Your task to perform on an android device: Clear the cart on amazon.com. Add "dell alienware" to the cart on amazon.com, then select checkout. Image 0: 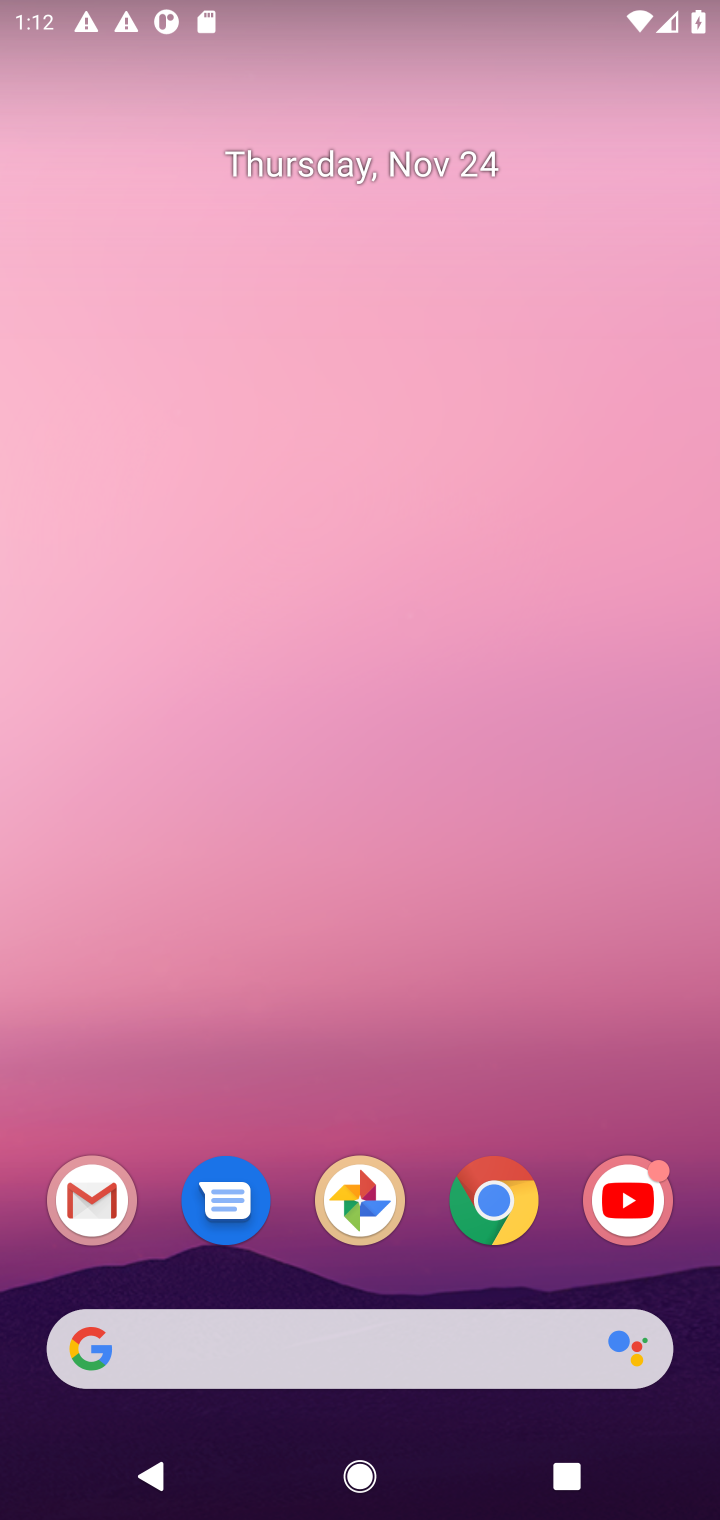
Step 0: click (520, 1362)
Your task to perform on an android device: Clear the cart on amazon.com. Add "dell alienware" to the cart on amazon.com, then select checkout. Image 1: 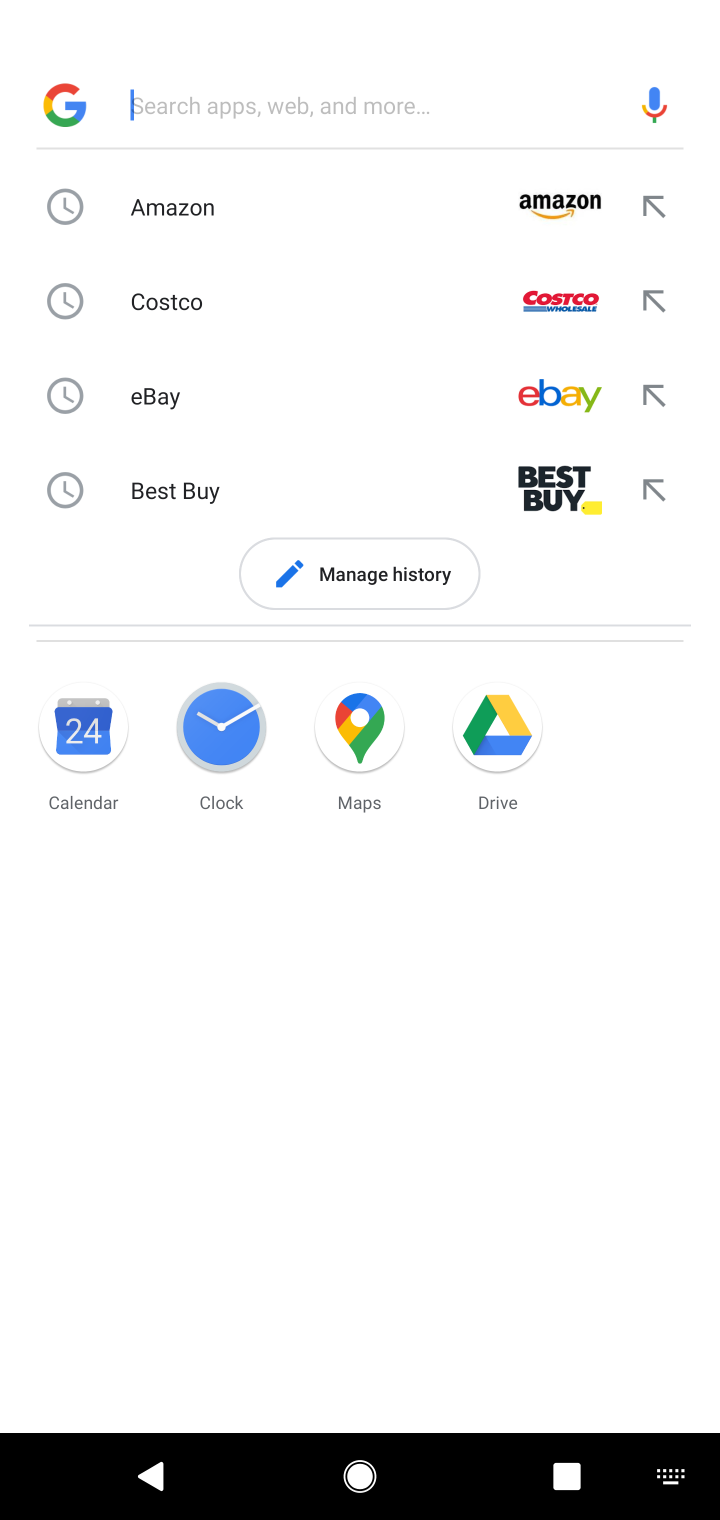
Step 1: type "amazon.com"
Your task to perform on an android device: Clear the cart on amazon.com. Add "dell alienware" to the cart on amazon.com, then select checkout. Image 2: 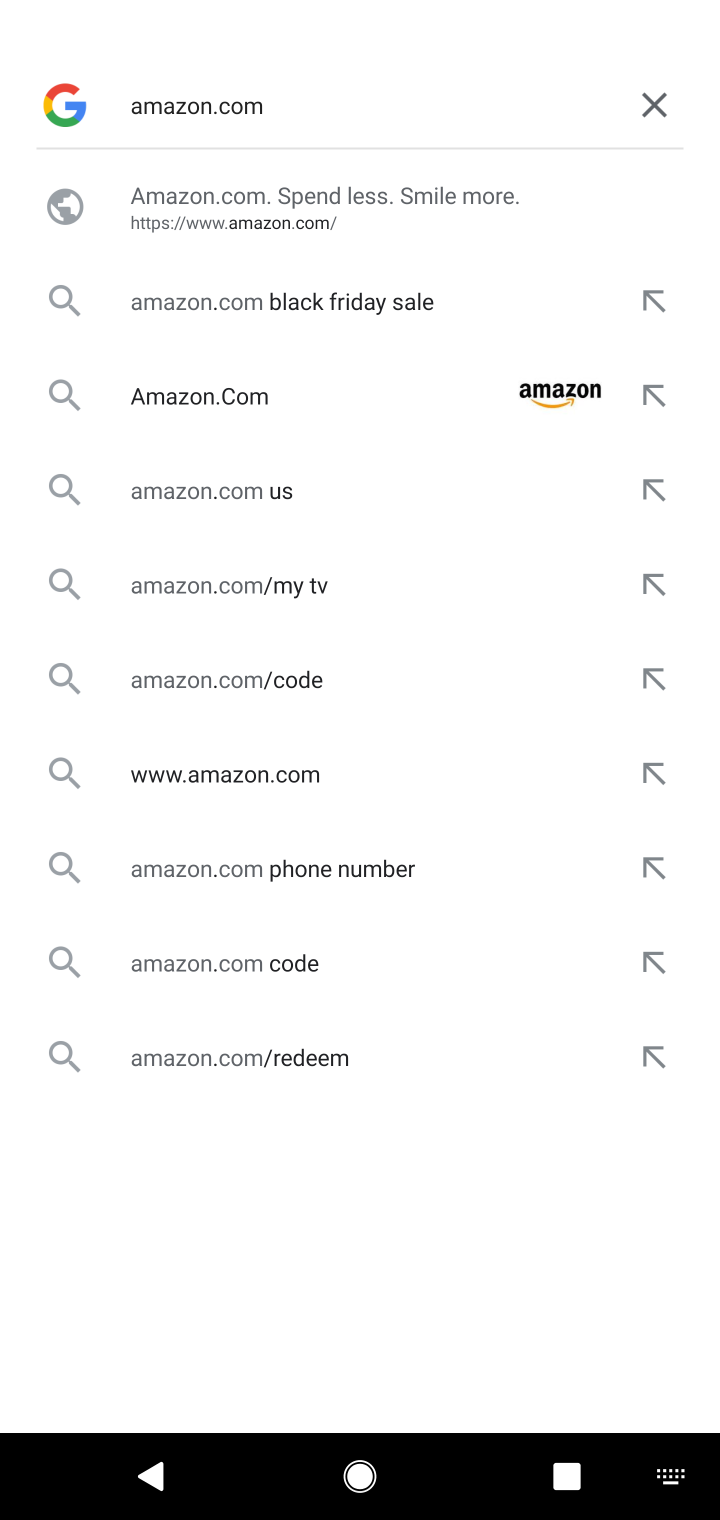
Step 2: click (395, 206)
Your task to perform on an android device: Clear the cart on amazon.com. Add "dell alienware" to the cart on amazon.com, then select checkout. Image 3: 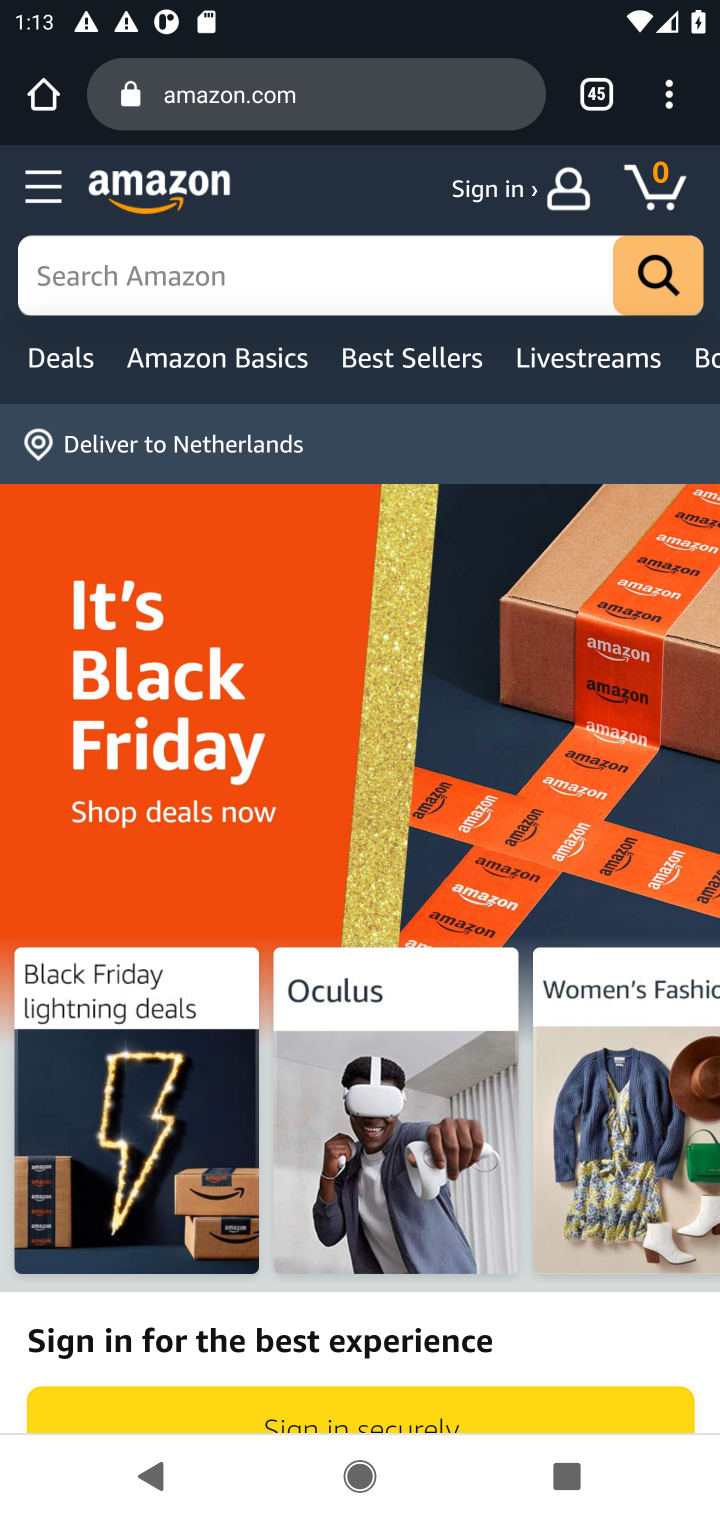
Step 3: click (287, 272)
Your task to perform on an android device: Clear the cart on amazon.com. Add "dell alienware" to the cart on amazon.com, then select checkout. Image 4: 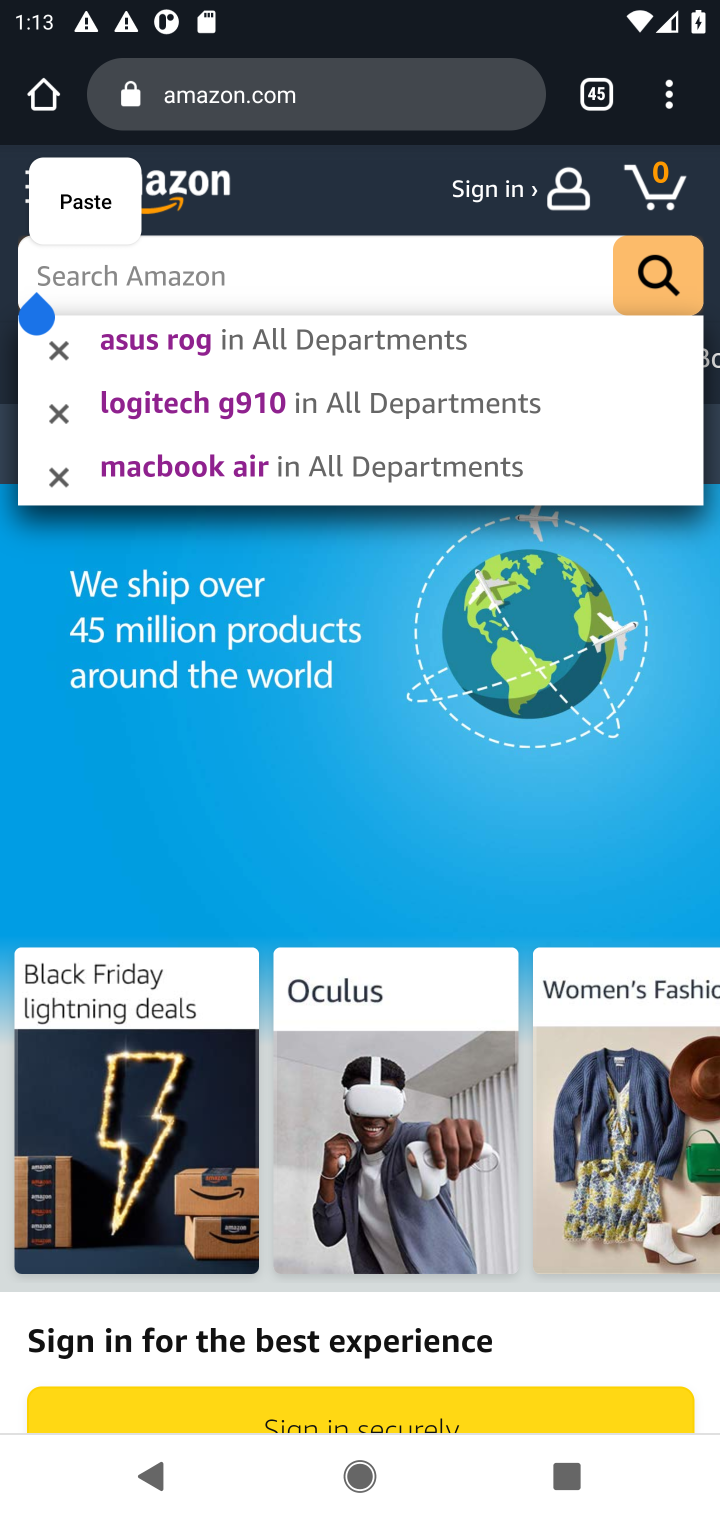
Step 4: type "dell alienware"
Your task to perform on an android device: Clear the cart on amazon.com. Add "dell alienware" to the cart on amazon.com, then select checkout. Image 5: 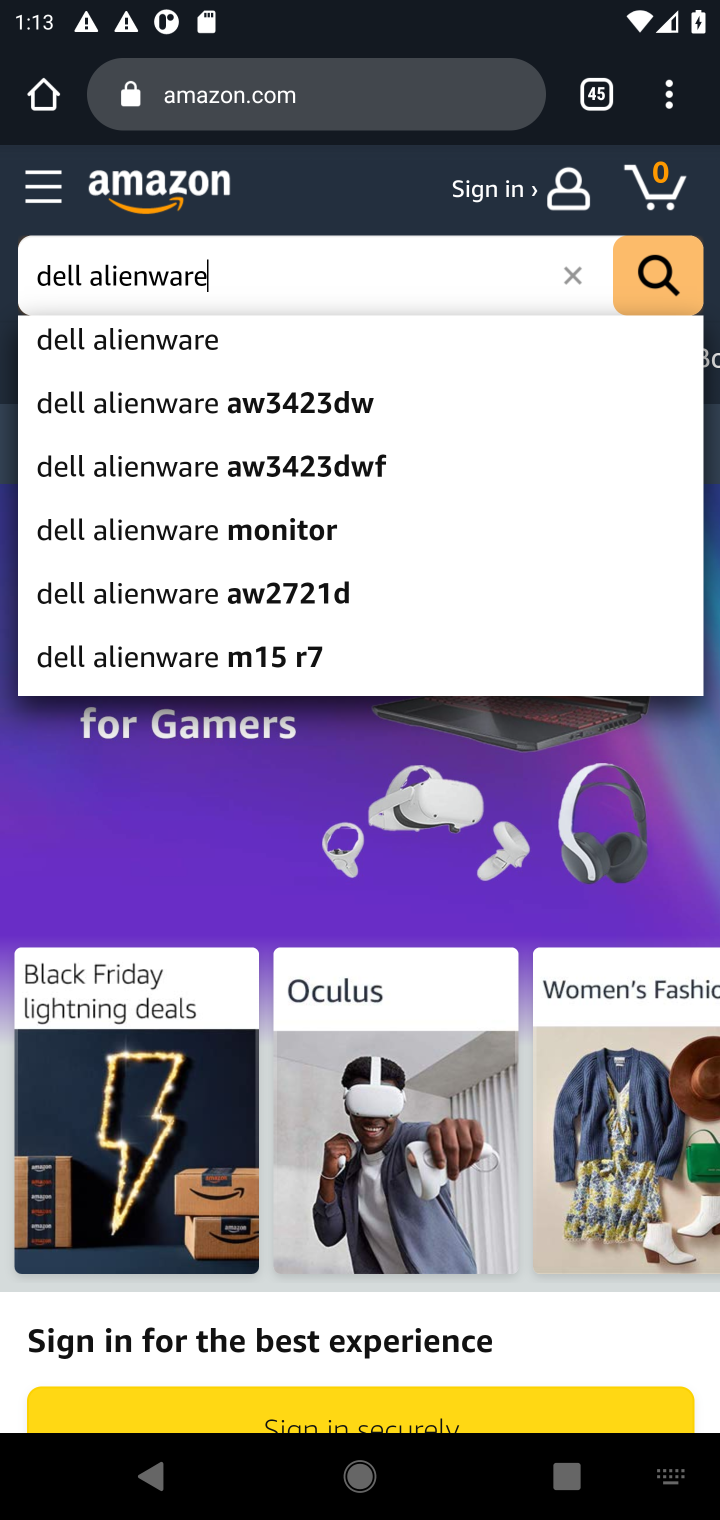
Step 5: click (226, 327)
Your task to perform on an android device: Clear the cart on amazon.com. Add "dell alienware" to the cart on amazon.com, then select checkout. Image 6: 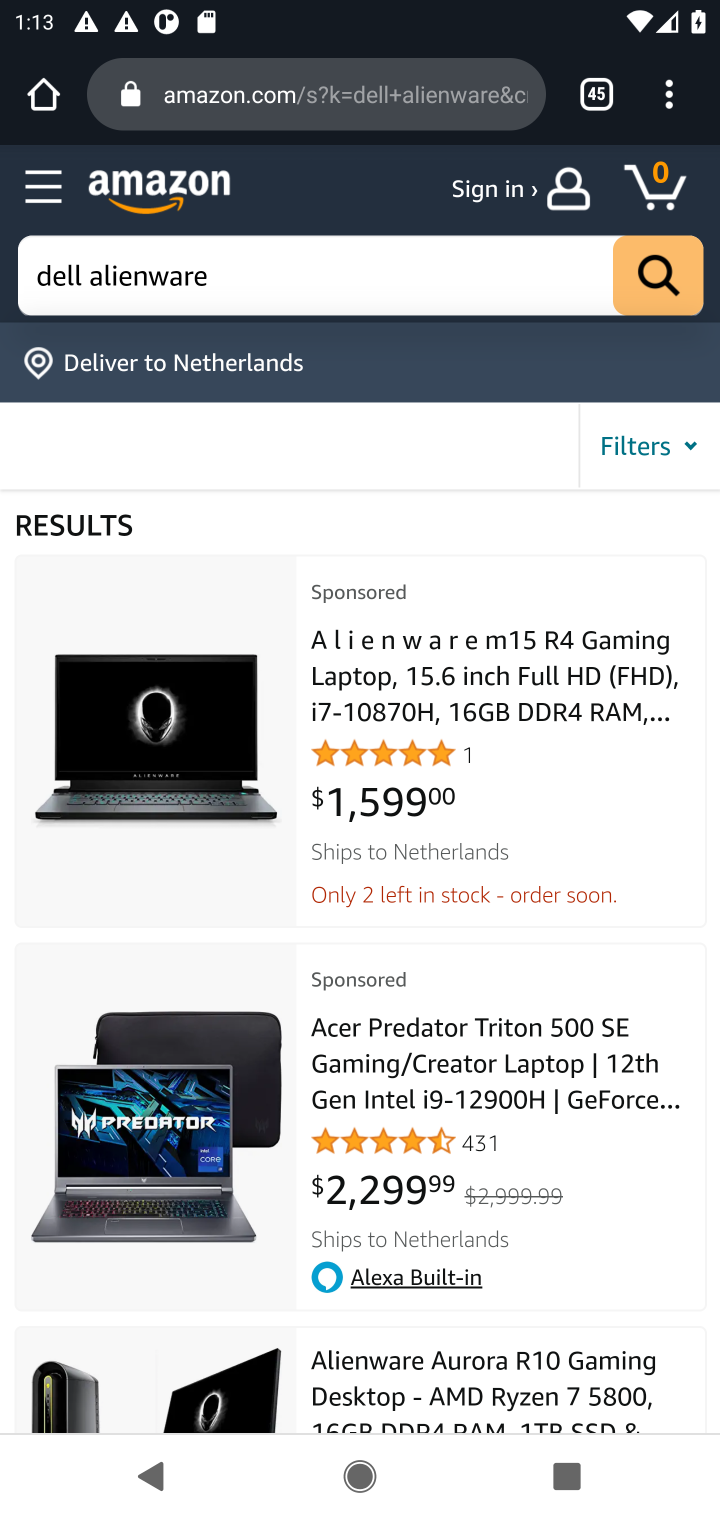
Step 6: click (421, 755)
Your task to perform on an android device: Clear the cart on amazon.com. Add "dell alienware" to the cart on amazon.com, then select checkout. Image 7: 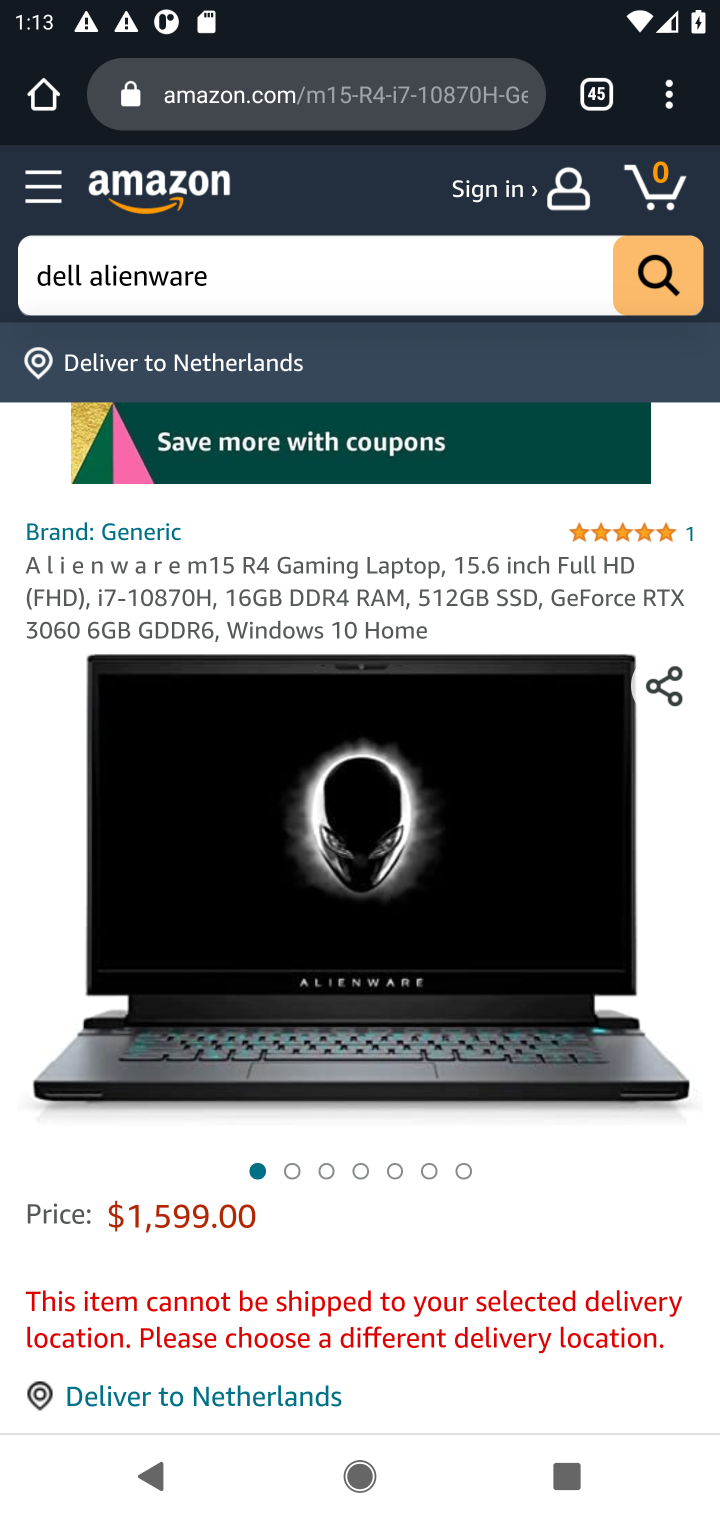
Step 7: task complete